Your task to perform on an android device: toggle translation in the chrome app Image 0: 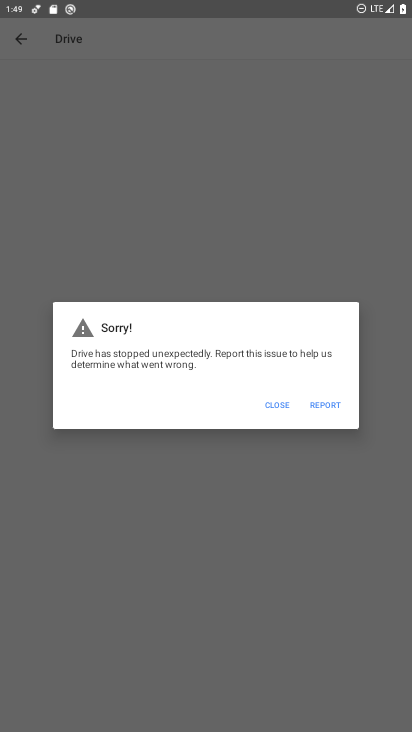
Step 0: press home button
Your task to perform on an android device: toggle translation in the chrome app Image 1: 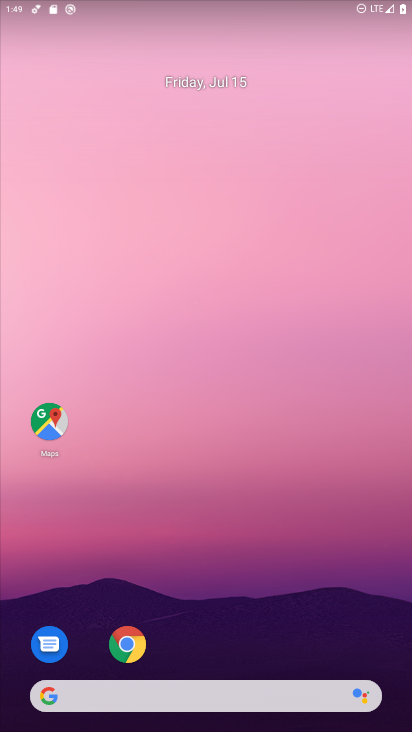
Step 1: drag from (70, 507) to (280, 1)
Your task to perform on an android device: toggle translation in the chrome app Image 2: 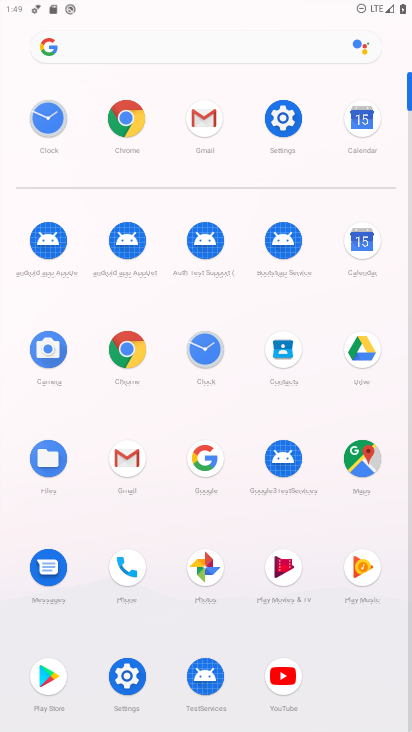
Step 2: click (125, 353)
Your task to perform on an android device: toggle translation in the chrome app Image 3: 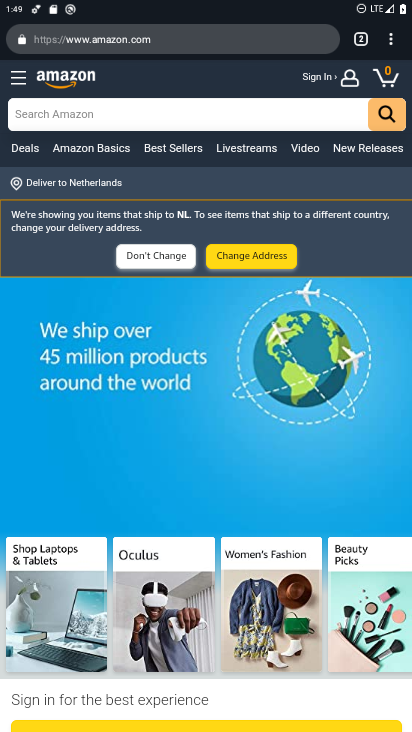
Step 3: click (388, 44)
Your task to perform on an android device: toggle translation in the chrome app Image 4: 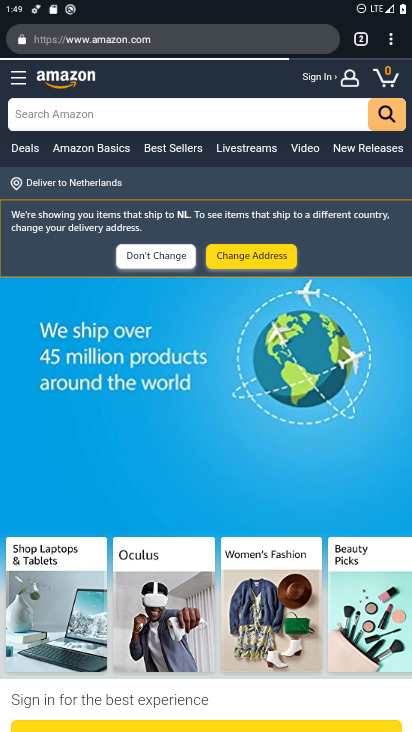
Step 4: click (386, 44)
Your task to perform on an android device: toggle translation in the chrome app Image 5: 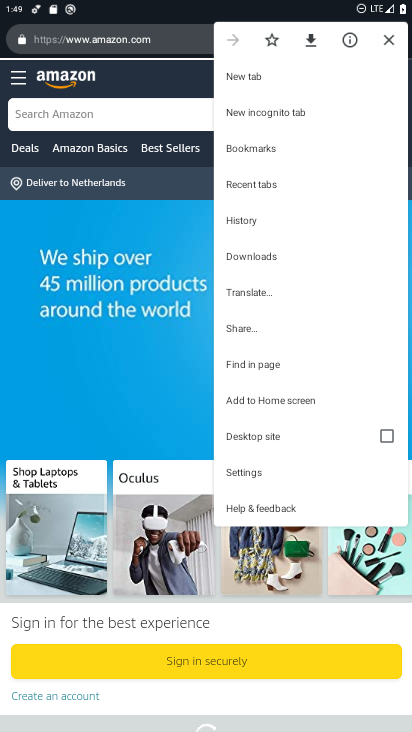
Step 5: click (229, 467)
Your task to perform on an android device: toggle translation in the chrome app Image 6: 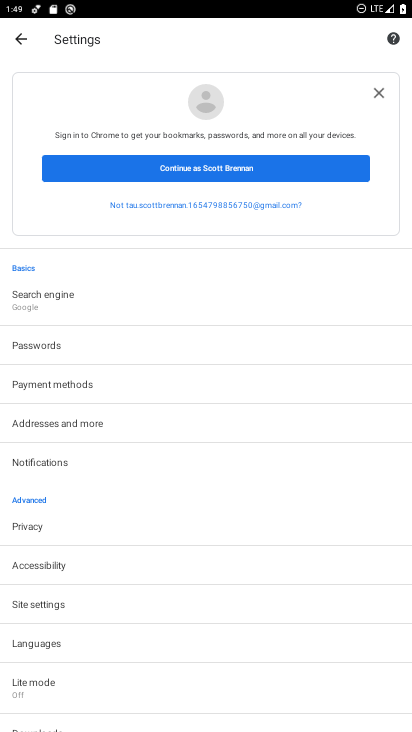
Step 6: click (139, 639)
Your task to perform on an android device: toggle translation in the chrome app Image 7: 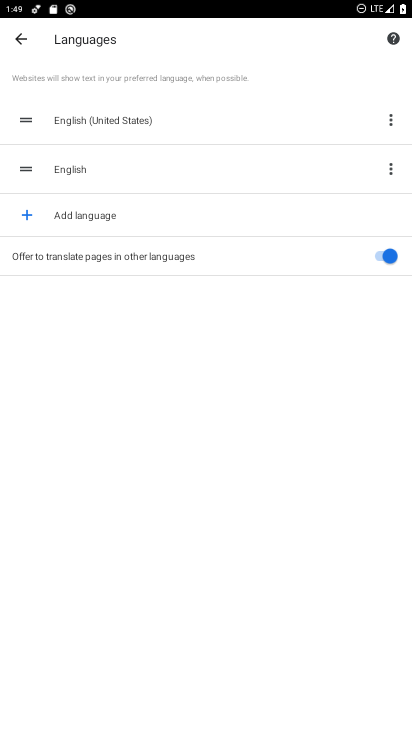
Step 7: click (392, 250)
Your task to perform on an android device: toggle translation in the chrome app Image 8: 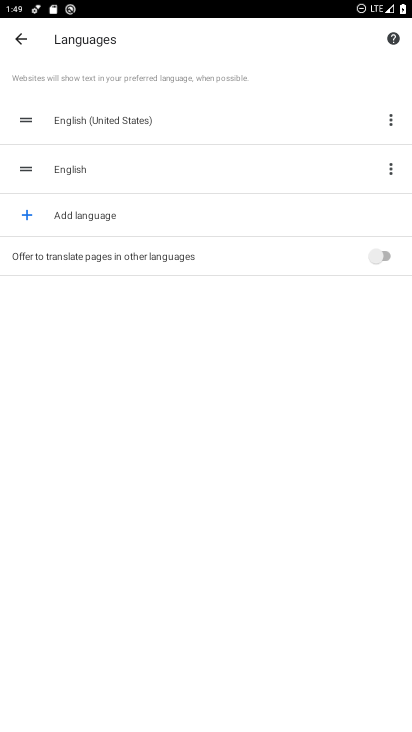
Step 8: task complete